Your task to perform on an android device: star an email in the gmail app Image 0: 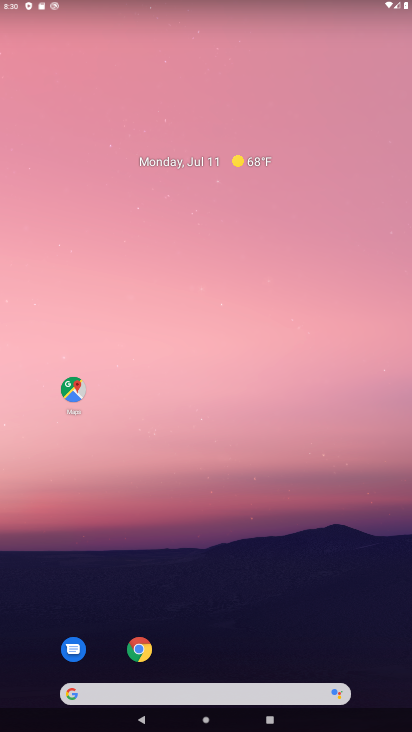
Step 0: drag from (318, 647) to (167, 164)
Your task to perform on an android device: star an email in the gmail app Image 1: 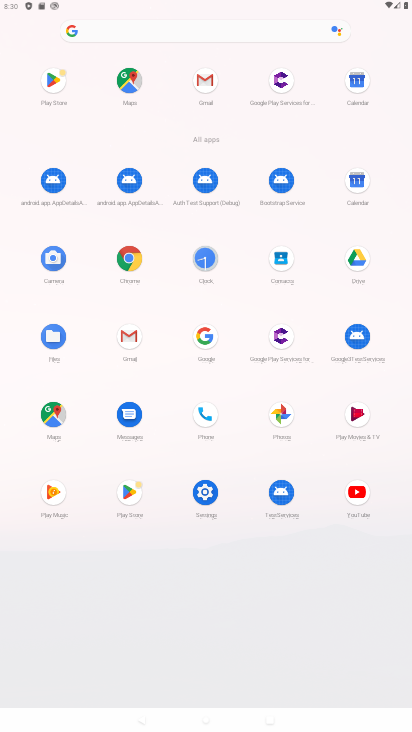
Step 1: click (124, 329)
Your task to perform on an android device: star an email in the gmail app Image 2: 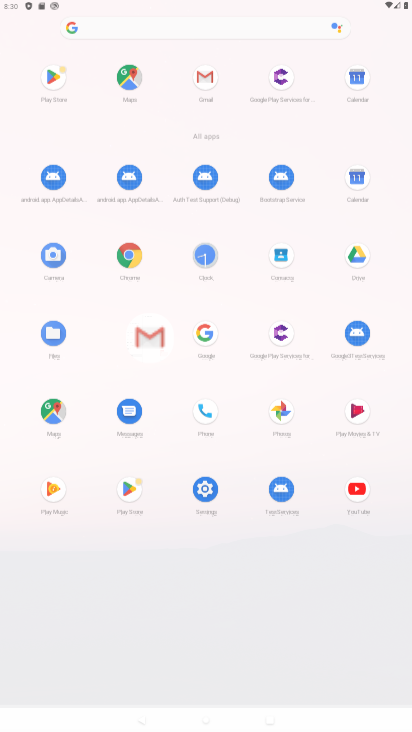
Step 2: click (124, 329)
Your task to perform on an android device: star an email in the gmail app Image 3: 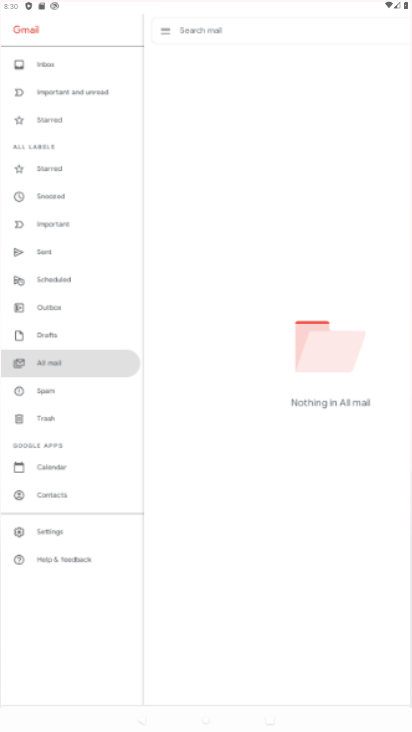
Step 3: click (124, 329)
Your task to perform on an android device: star an email in the gmail app Image 4: 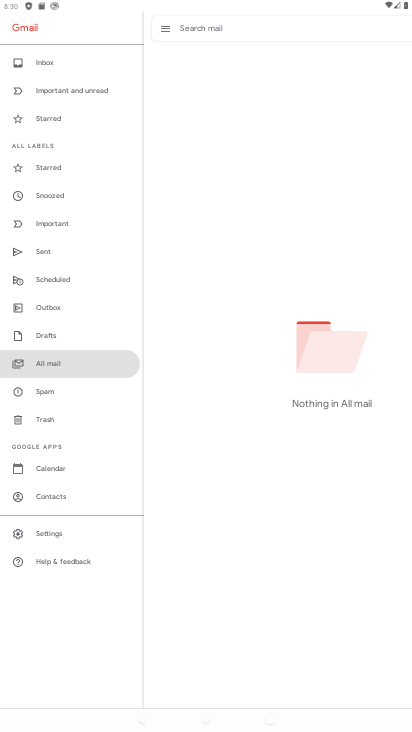
Step 4: click (54, 370)
Your task to perform on an android device: star an email in the gmail app Image 5: 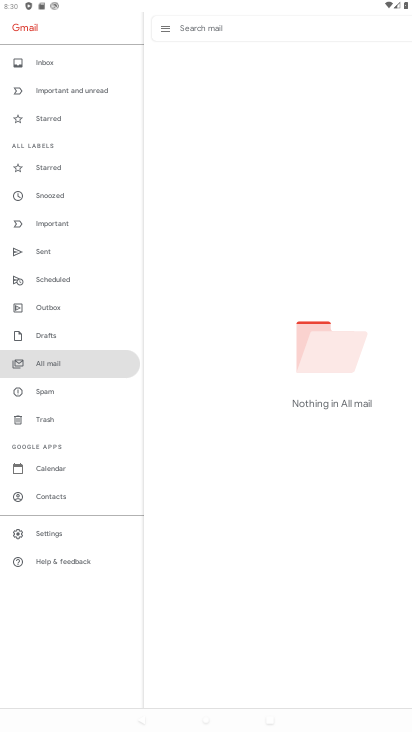
Step 5: click (52, 364)
Your task to perform on an android device: star an email in the gmail app Image 6: 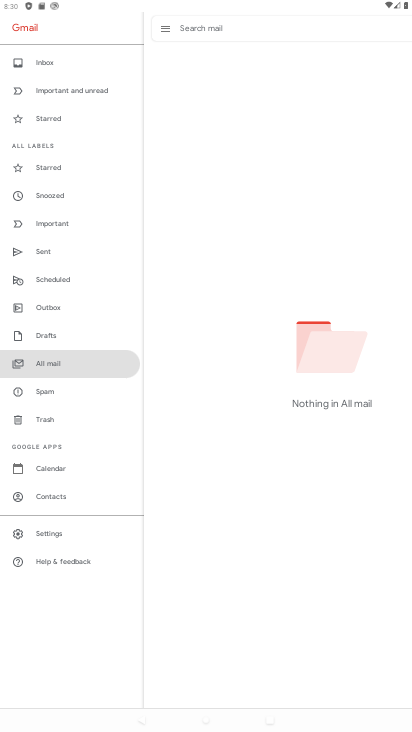
Step 6: click (52, 364)
Your task to perform on an android device: star an email in the gmail app Image 7: 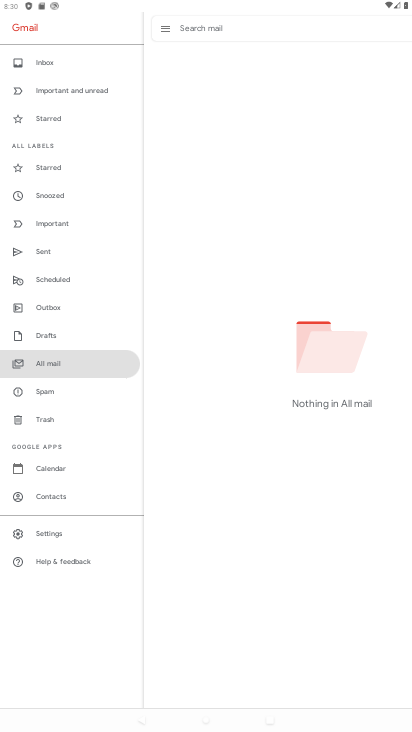
Step 7: click (55, 355)
Your task to perform on an android device: star an email in the gmail app Image 8: 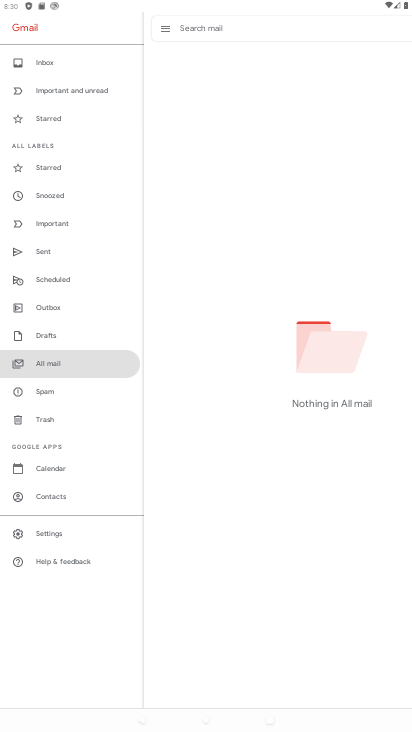
Step 8: click (57, 352)
Your task to perform on an android device: star an email in the gmail app Image 9: 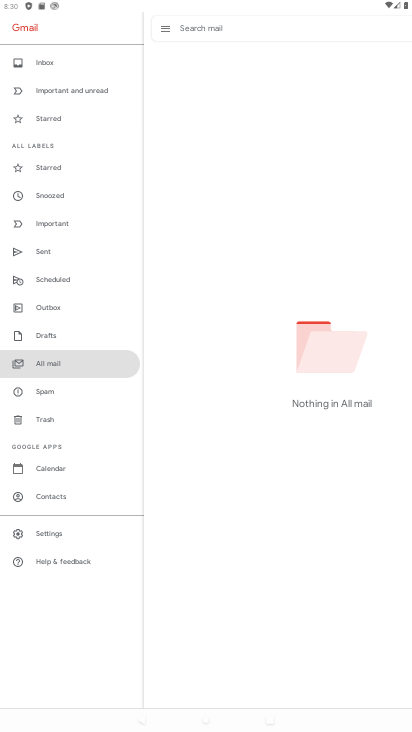
Step 9: task complete